Your task to perform on an android device: Go to settings Image 0: 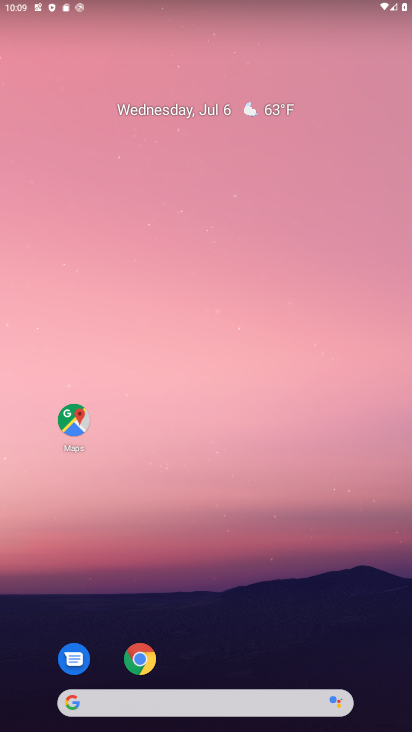
Step 0: drag from (245, 612) to (363, 110)
Your task to perform on an android device: Go to settings Image 1: 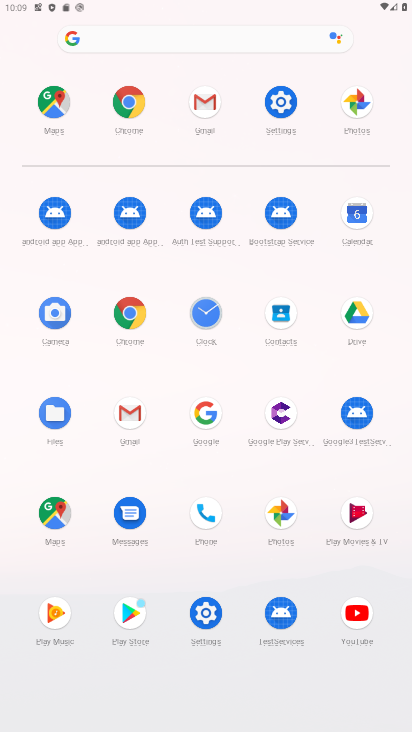
Step 1: click (290, 91)
Your task to perform on an android device: Go to settings Image 2: 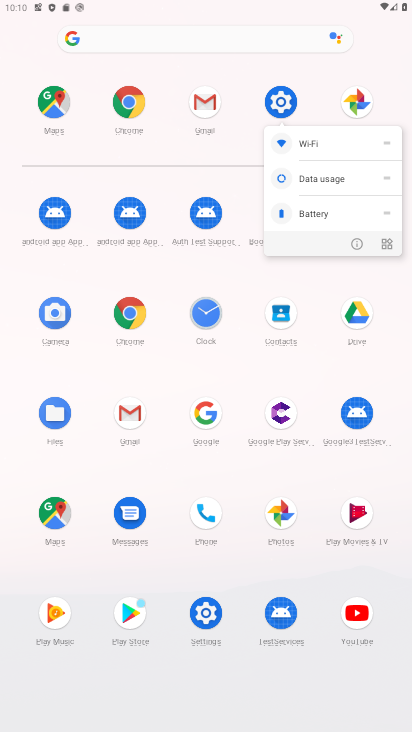
Step 2: click (355, 240)
Your task to perform on an android device: Go to settings Image 3: 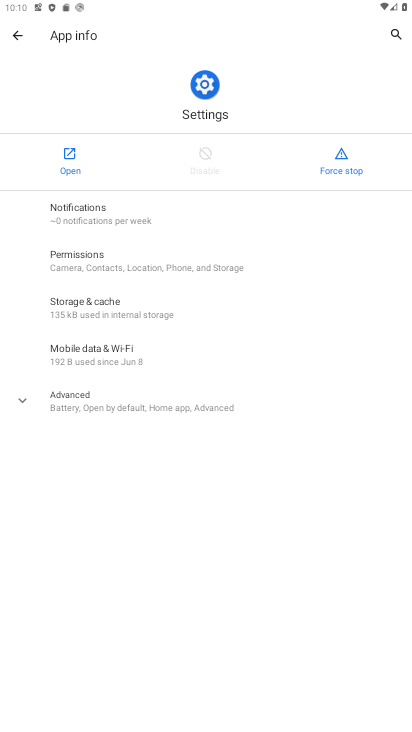
Step 3: click (69, 172)
Your task to perform on an android device: Go to settings Image 4: 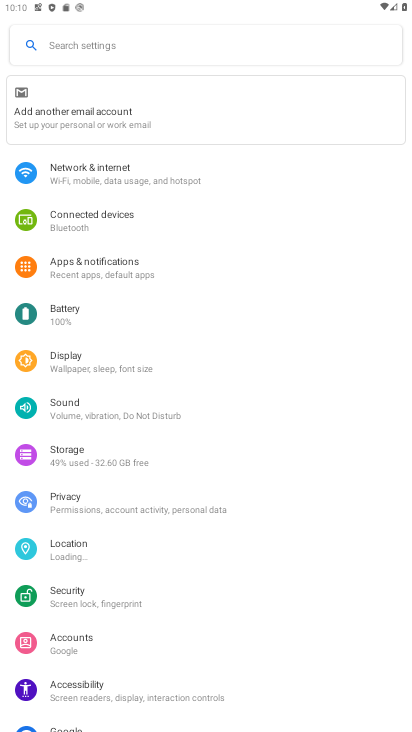
Step 4: task complete